Your task to perform on an android device: Open Android settings Image 0: 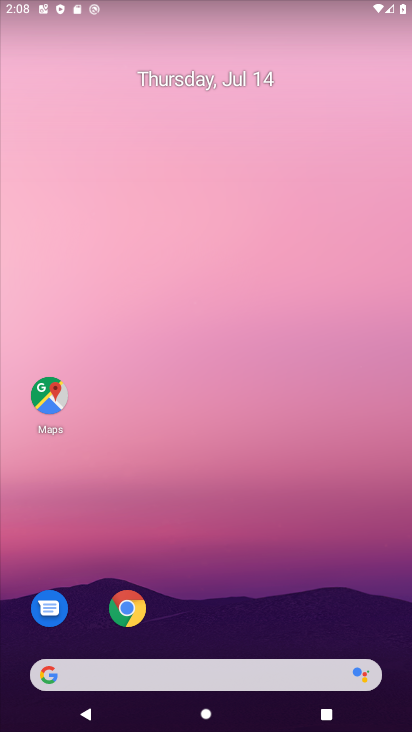
Step 0: drag from (197, 524) to (206, 31)
Your task to perform on an android device: Open Android settings Image 1: 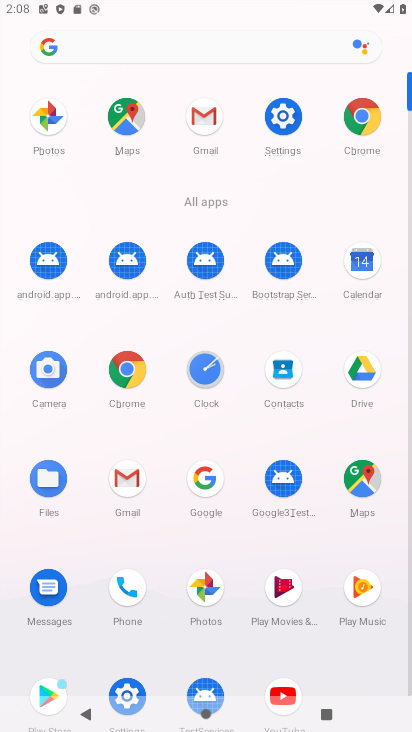
Step 1: click (279, 122)
Your task to perform on an android device: Open Android settings Image 2: 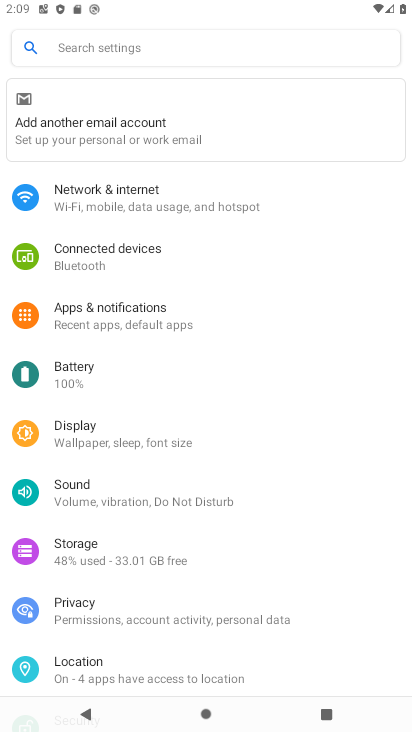
Step 2: drag from (124, 686) to (241, 42)
Your task to perform on an android device: Open Android settings Image 3: 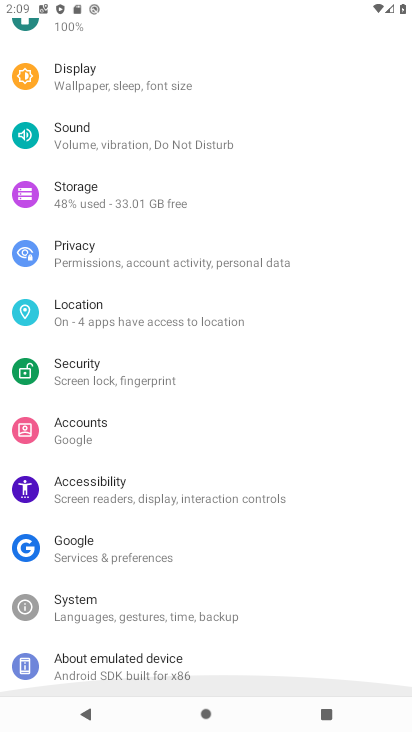
Step 3: drag from (125, 626) to (235, 32)
Your task to perform on an android device: Open Android settings Image 4: 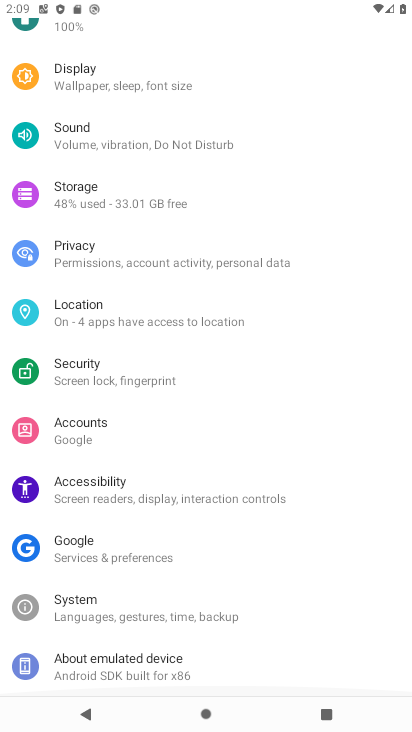
Step 4: click (121, 674)
Your task to perform on an android device: Open Android settings Image 5: 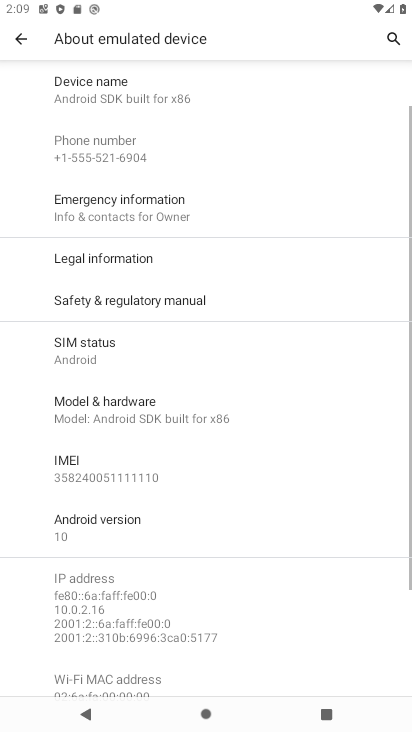
Step 5: click (93, 526)
Your task to perform on an android device: Open Android settings Image 6: 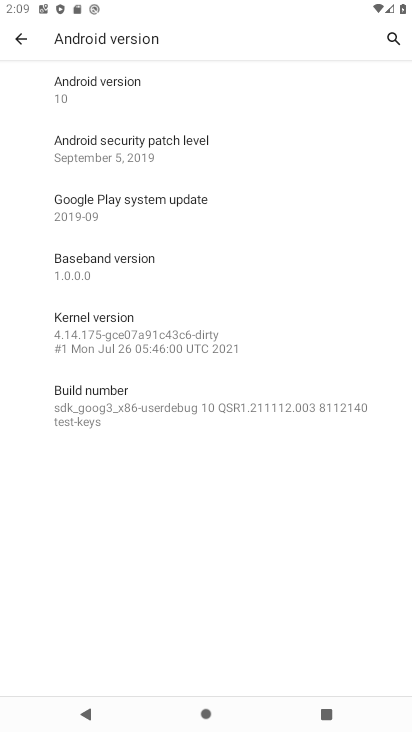
Step 6: task complete